Your task to perform on an android device: open app "Microsoft Authenticator" Image 0: 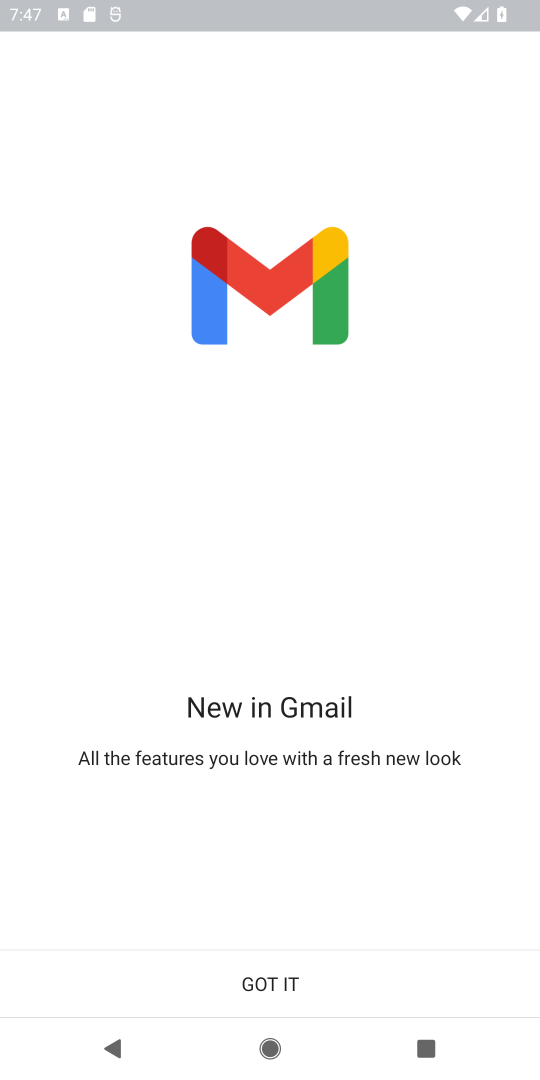
Step 0: press home button
Your task to perform on an android device: open app "Microsoft Authenticator" Image 1: 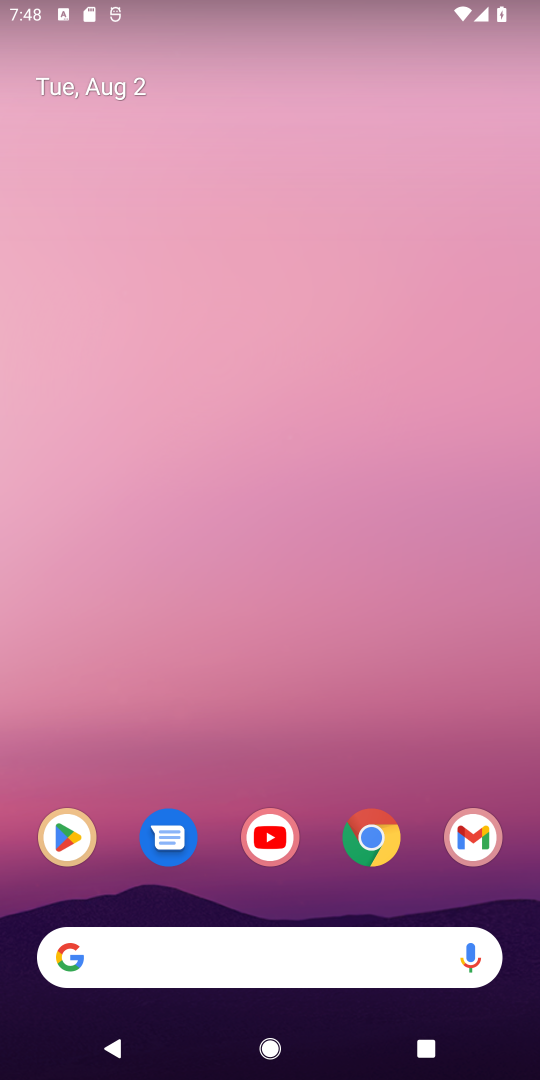
Step 1: click (77, 840)
Your task to perform on an android device: open app "Microsoft Authenticator" Image 2: 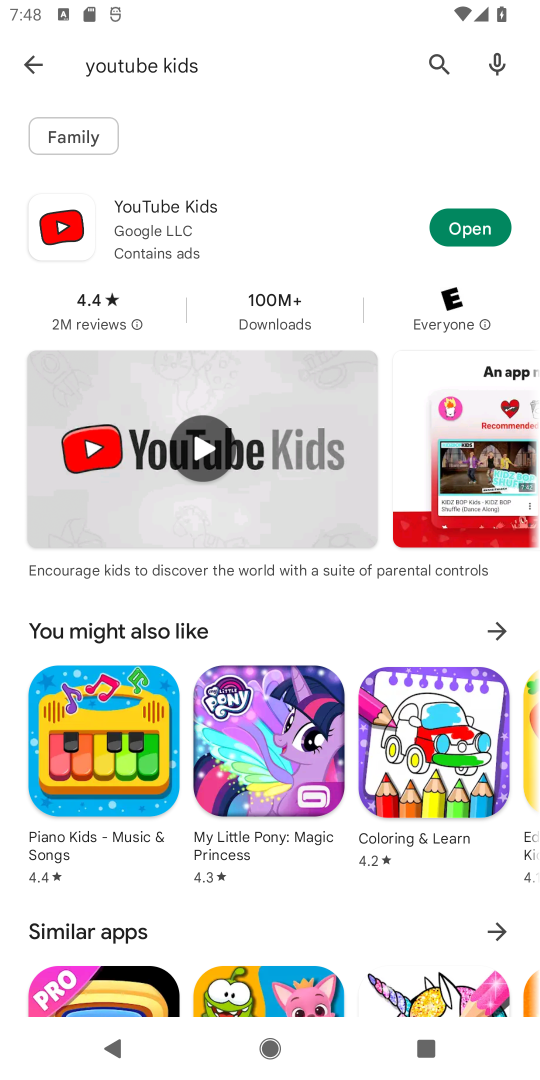
Step 2: click (436, 54)
Your task to perform on an android device: open app "Microsoft Authenticator" Image 3: 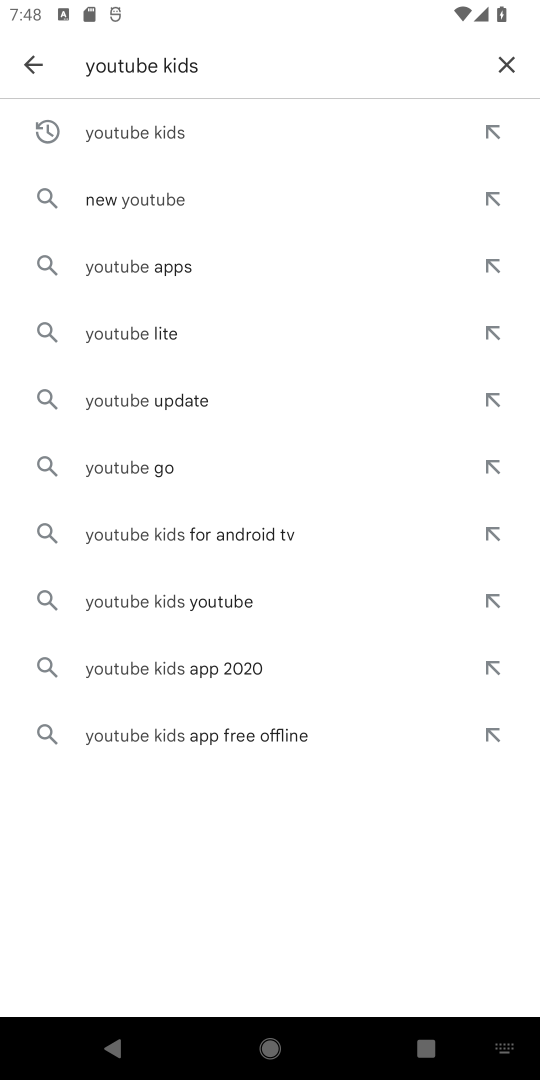
Step 3: click (518, 75)
Your task to perform on an android device: open app "Microsoft Authenticator" Image 4: 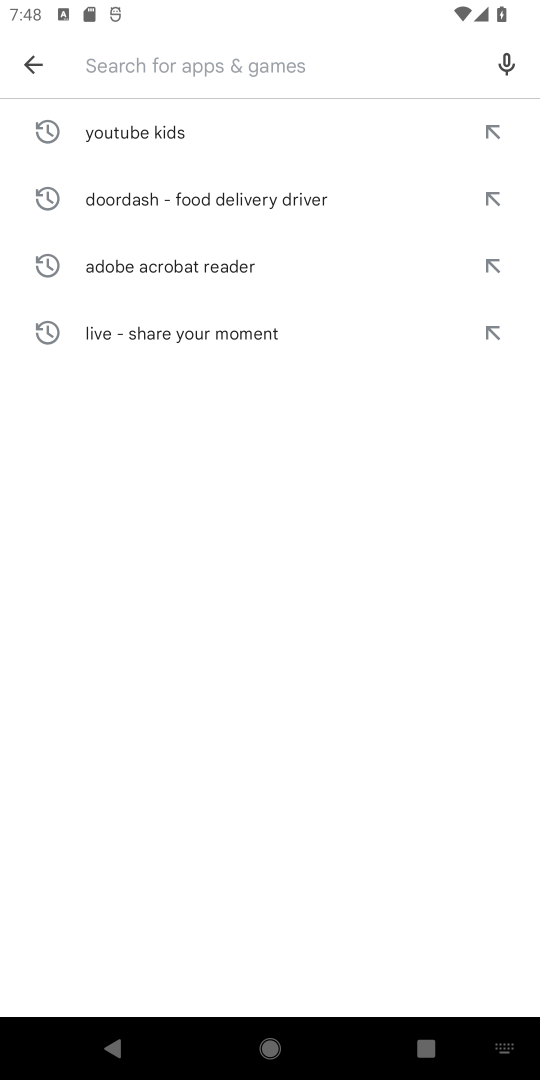
Step 4: type "Microsoft Authenticator"
Your task to perform on an android device: open app "Microsoft Authenticator" Image 5: 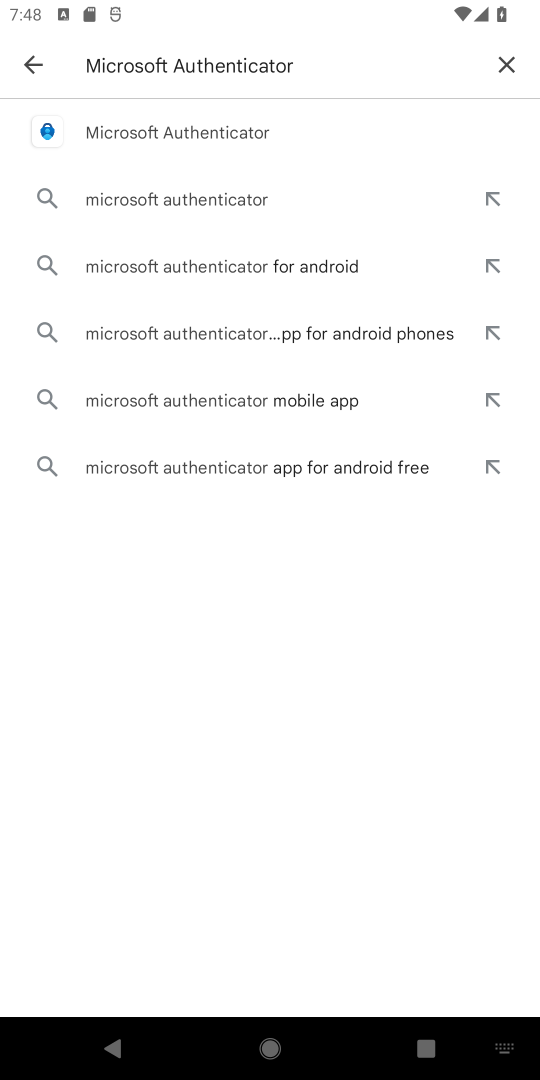
Step 5: click (189, 142)
Your task to perform on an android device: open app "Microsoft Authenticator" Image 6: 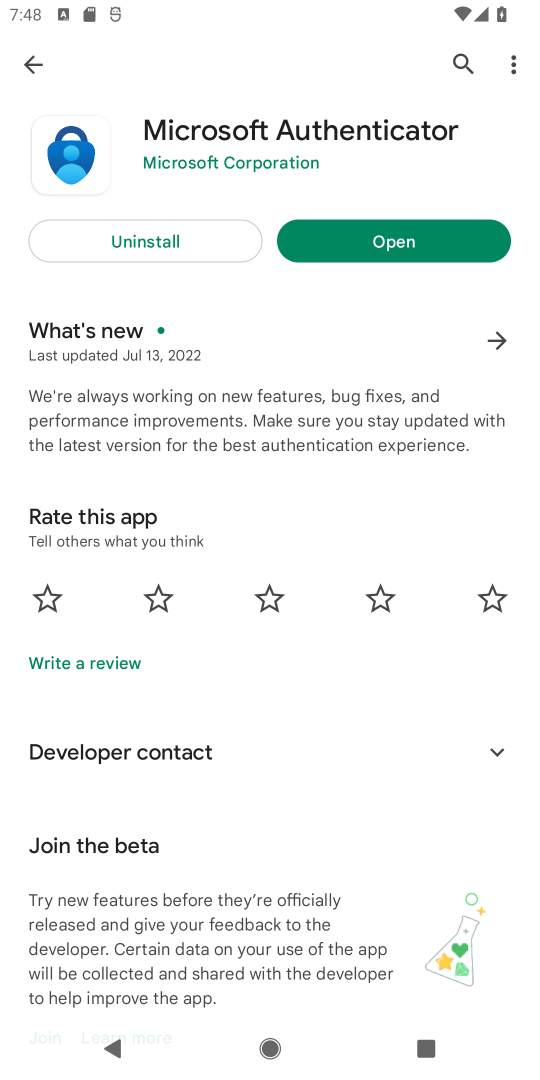
Step 6: click (362, 238)
Your task to perform on an android device: open app "Microsoft Authenticator" Image 7: 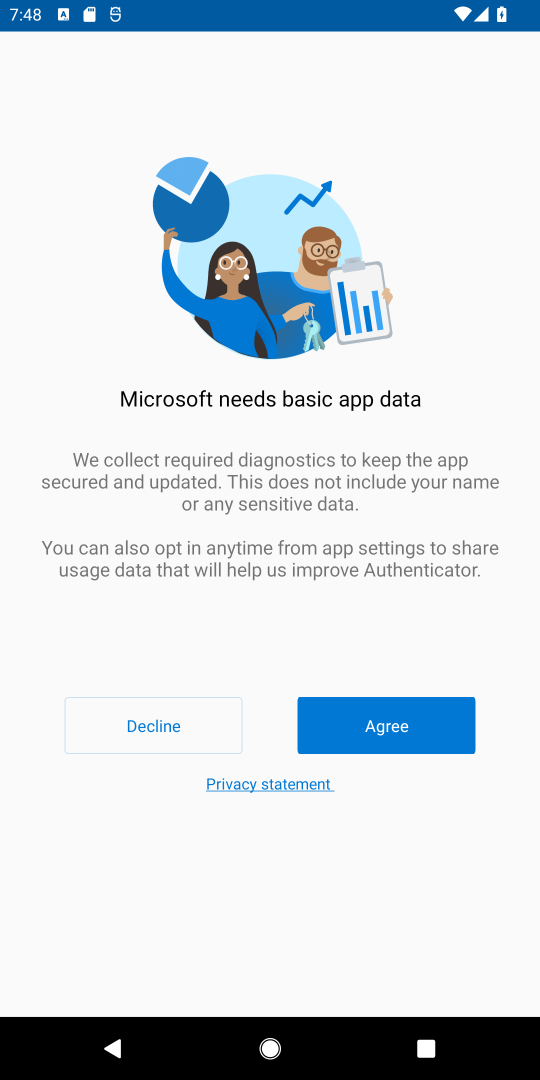
Step 7: task complete